Your task to perform on an android device: What's on my calendar tomorrow? Image 0: 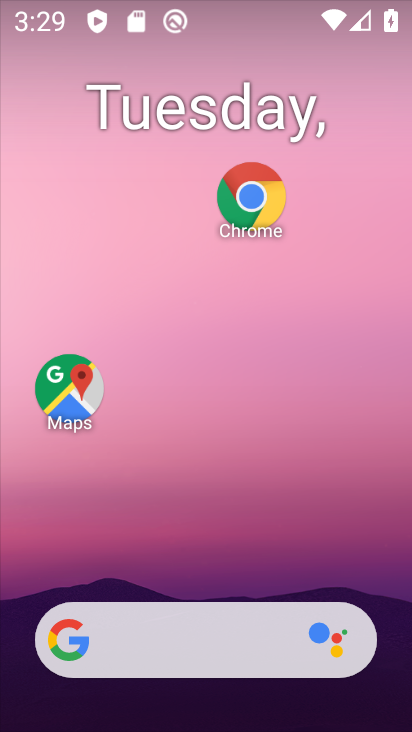
Step 0: drag from (233, 598) to (223, 69)
Your task to perform on an android device: What's on my calendar tomorrow? Image 1: 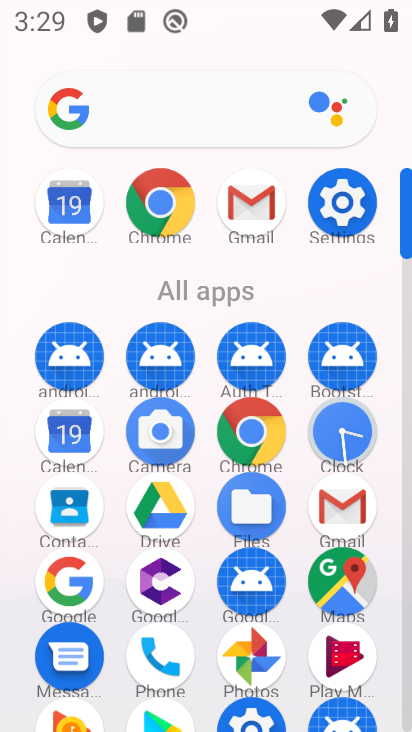
Step 1: drag from (203, 691) to (155, 350)
Your task to perform on an android device: What's on my calendar tomorrow? Image 2: 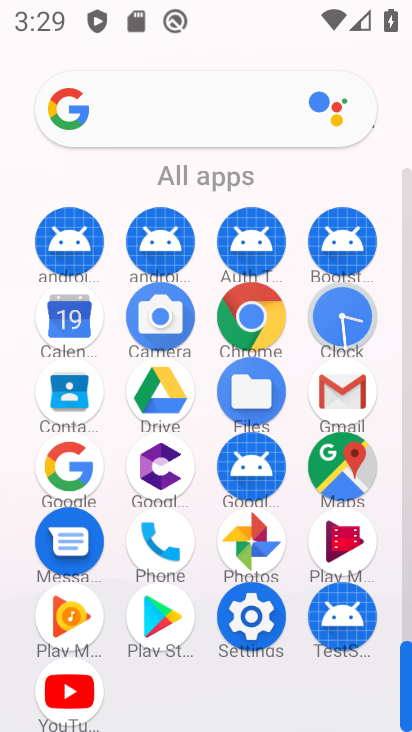
Step 2: click (66, 321)
Your task to perform on an android device: What's on my calendar tomorrow? Image 3: 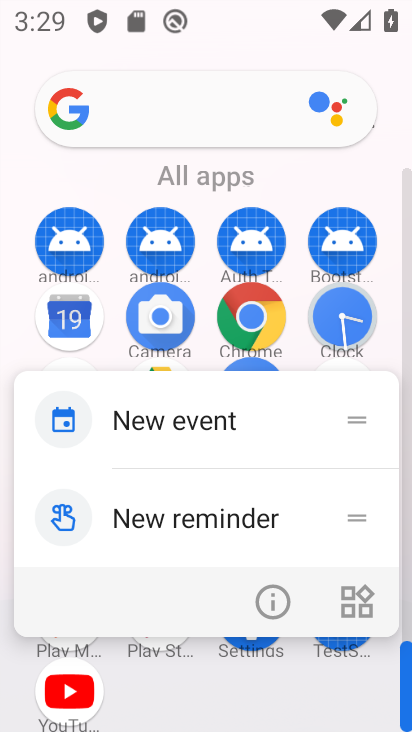
Step 3: click (68, 312)
Your task to perform on an android device: What's on my calendar tomorrow? Image 4: 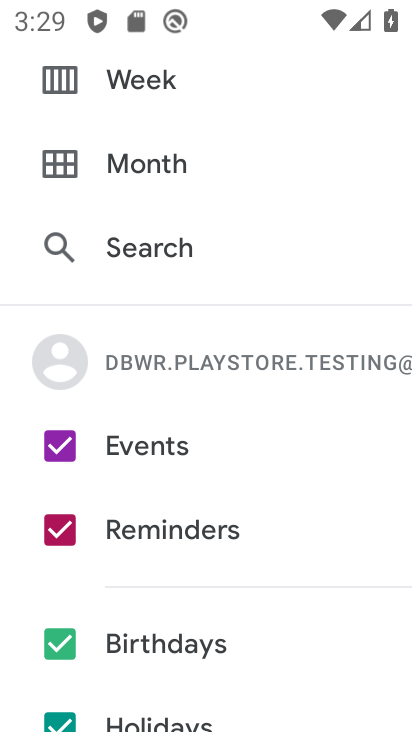
Step 4: drag from (232, 178) to (290, 542)
Your task to perform on an android device: What's on my calendar tomorrow? Image 5: 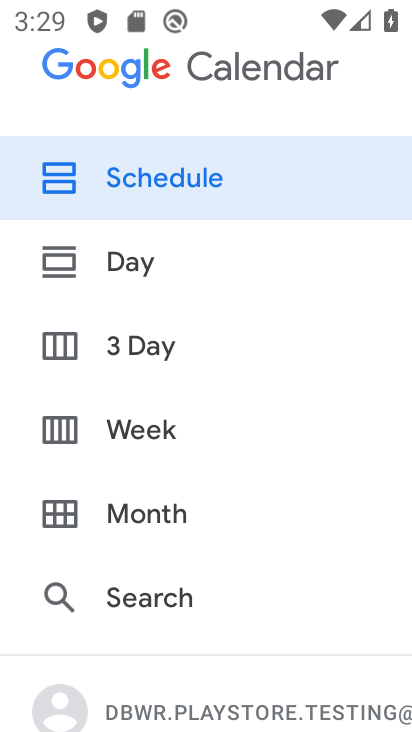
Step 5: press back button
Your task to perform on an android device: What's on my calendar tomorrow? Image 6: 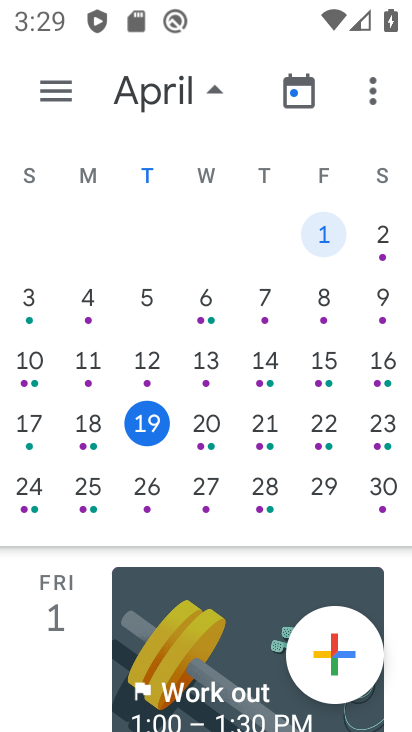
Step 6: click (214, 423)
Your task to perform on an android device: What's on my calendar tomorrow? Image 7: 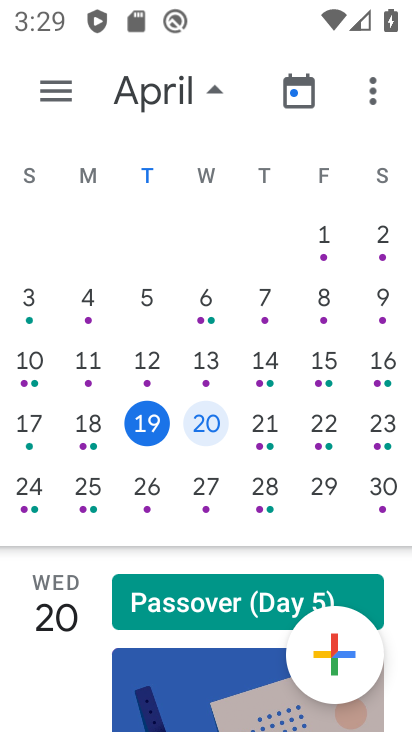
Step 7: task complete